Your task to perform on an android device: View the shopping cart on bestbuy.com. Add razer huntsman to the cart on bestbuy.com, then select checkout. Image 0: 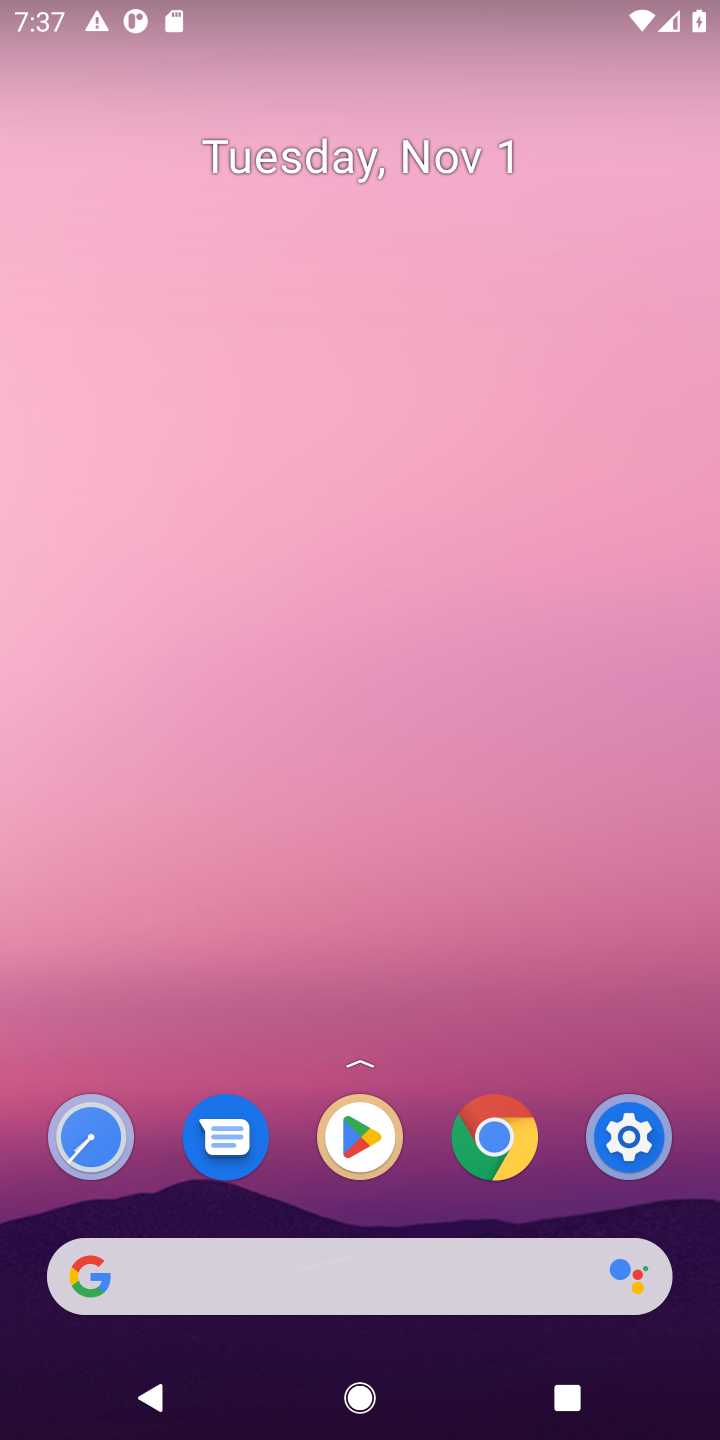
Step 0: click (293, 1280)
Your task to perform on an android device: View the shopping cart on bestbuy.com. Add razer huntsman to the cart on bestbuy.com, then select checkout. Image 1: 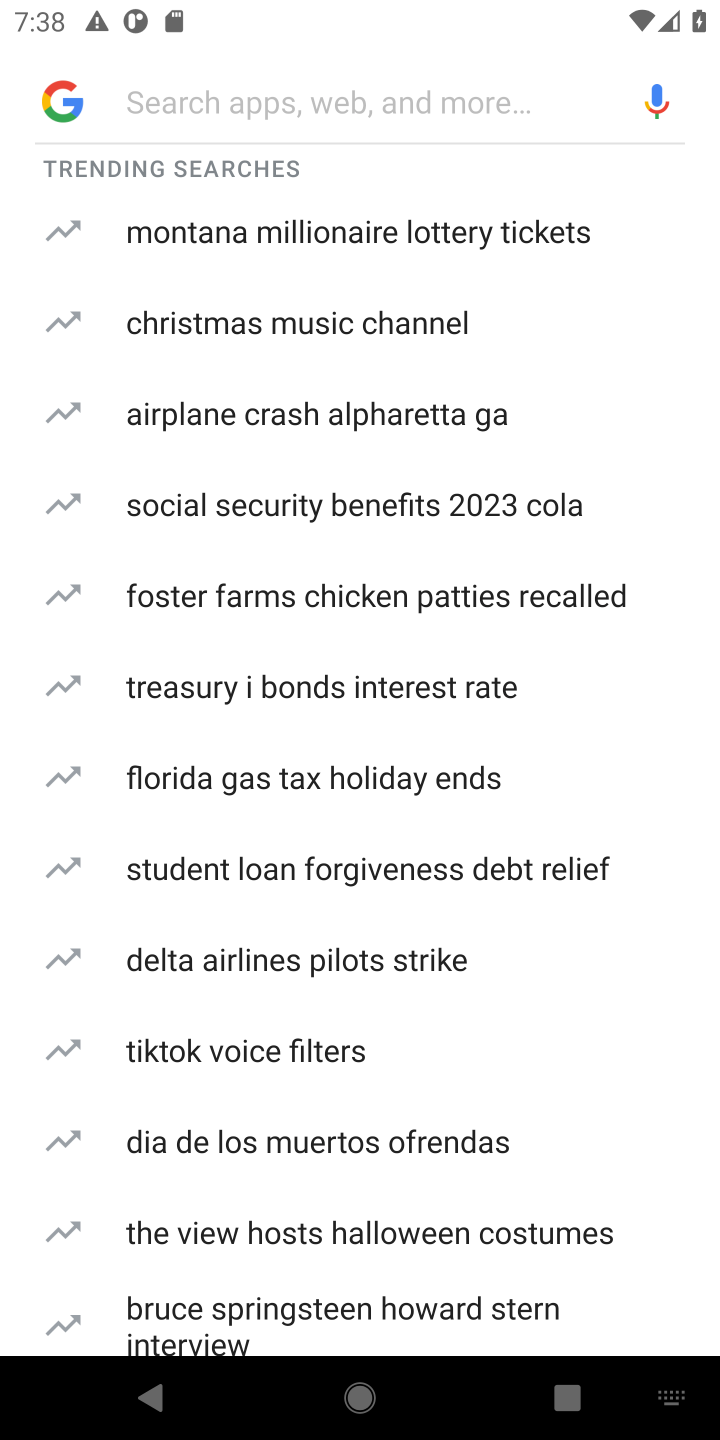
Step 1: type "bestbuy.com"
Your task to perform on an android device: View the shopping cart on bestbuy.com. Add razer huntsman to the cart on bestbuy.com, then select checkout. Image 2: 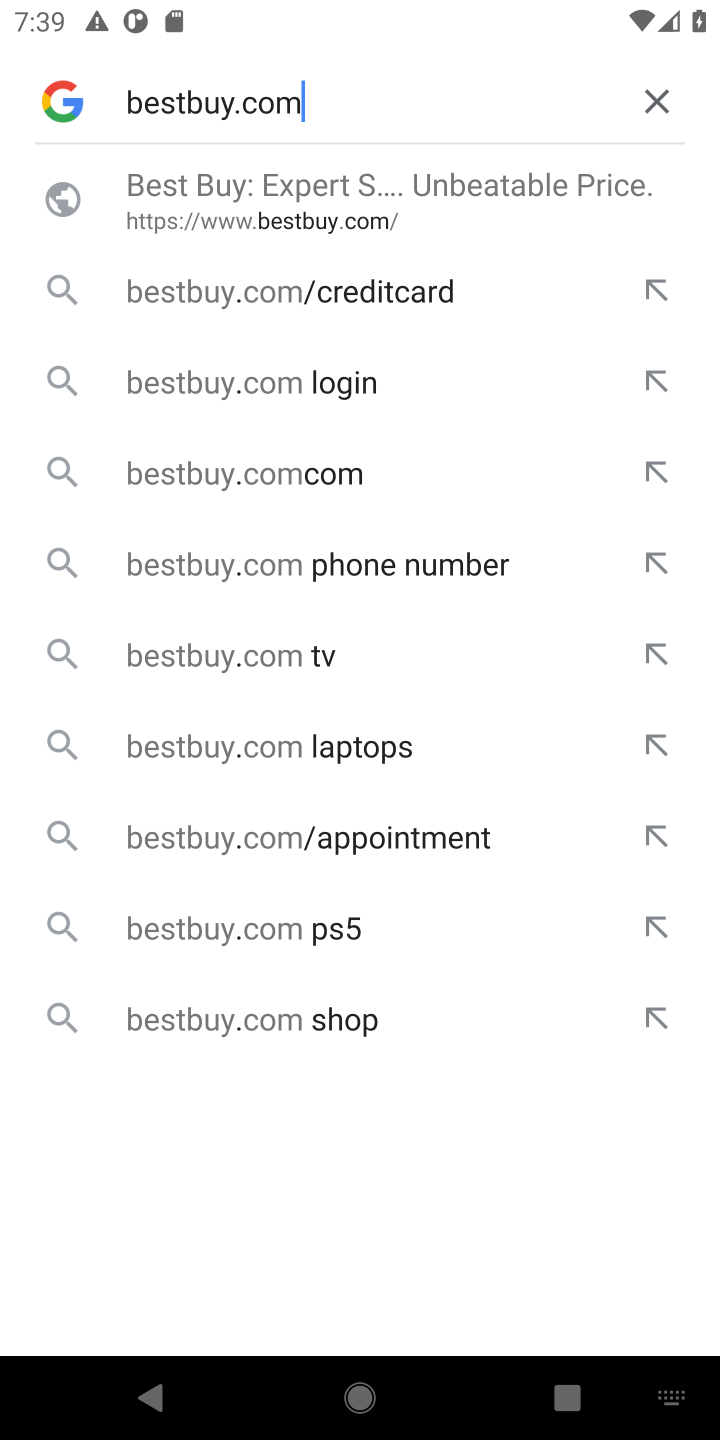
Step 2: click (265, 188)
Your task to perform on an android device: View the shopping cart on bestbuy.com. Add razer huntsman to the cart on bestbuy.com, then select checkout. Image 3: 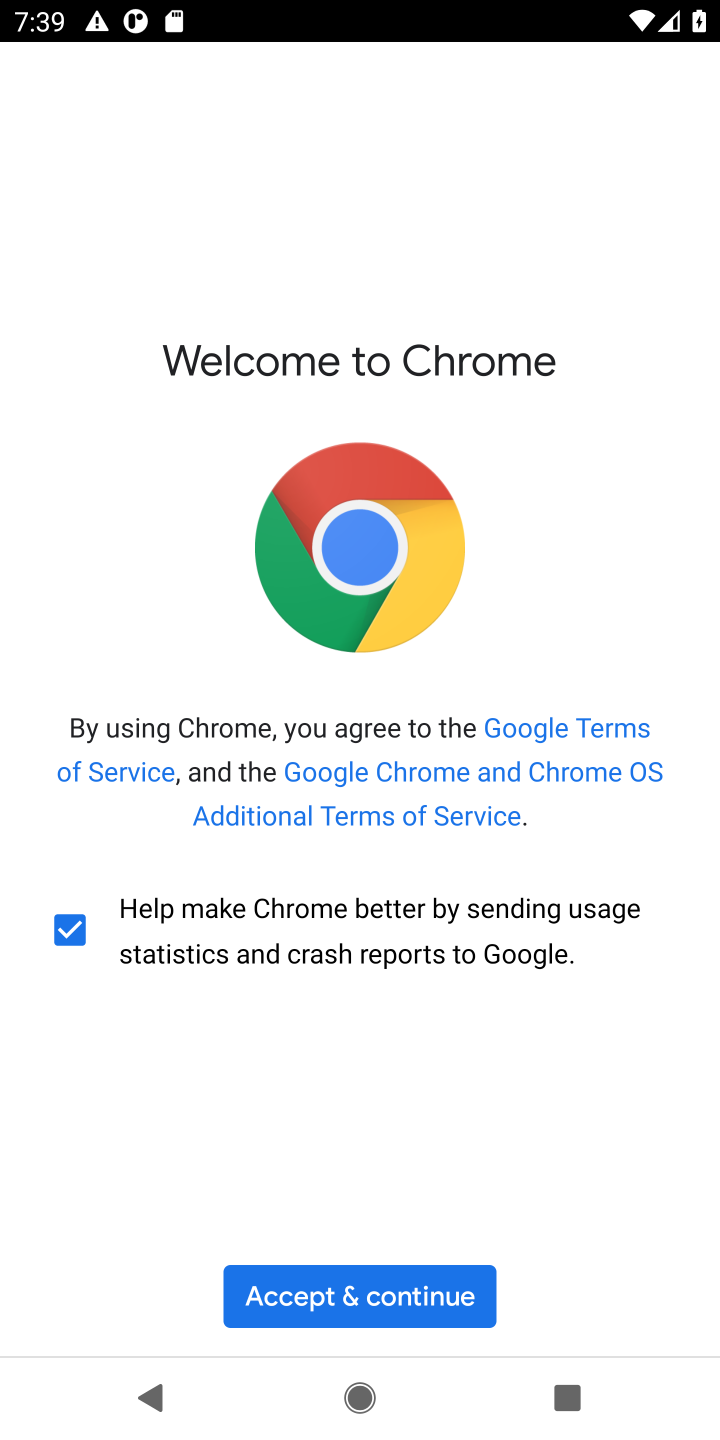
Step 3: click (358, 1293)
Your task to perform on an android device: View the shopping cart on bestbuy.com. Add razer huntsman to the cart on bestbuy.com, then select checkout. Image 4: 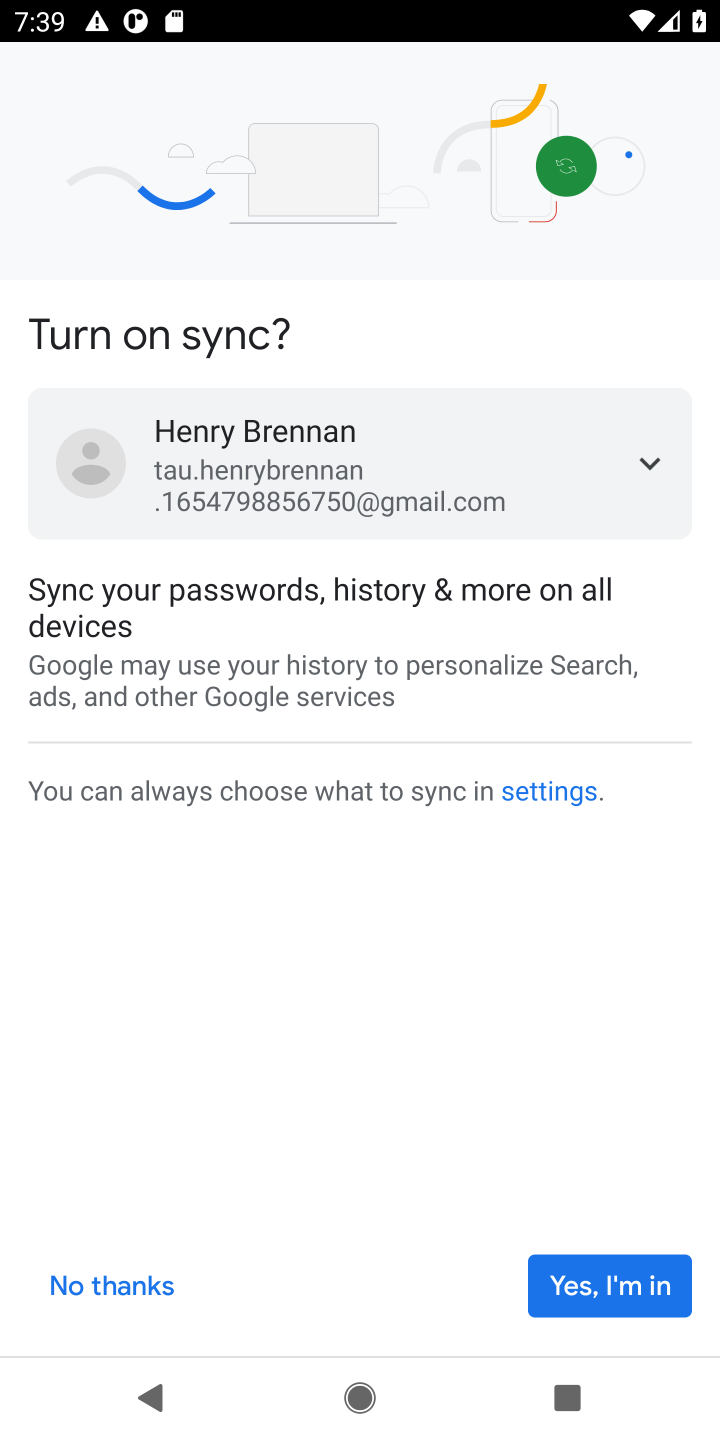
Step 4: click (640, 1274)
Your task to perform on an android device: View the shopping cart on bestbuy.com. Add razer huntsman to the cart on bestbuy.com, then select checkout. Image 5: 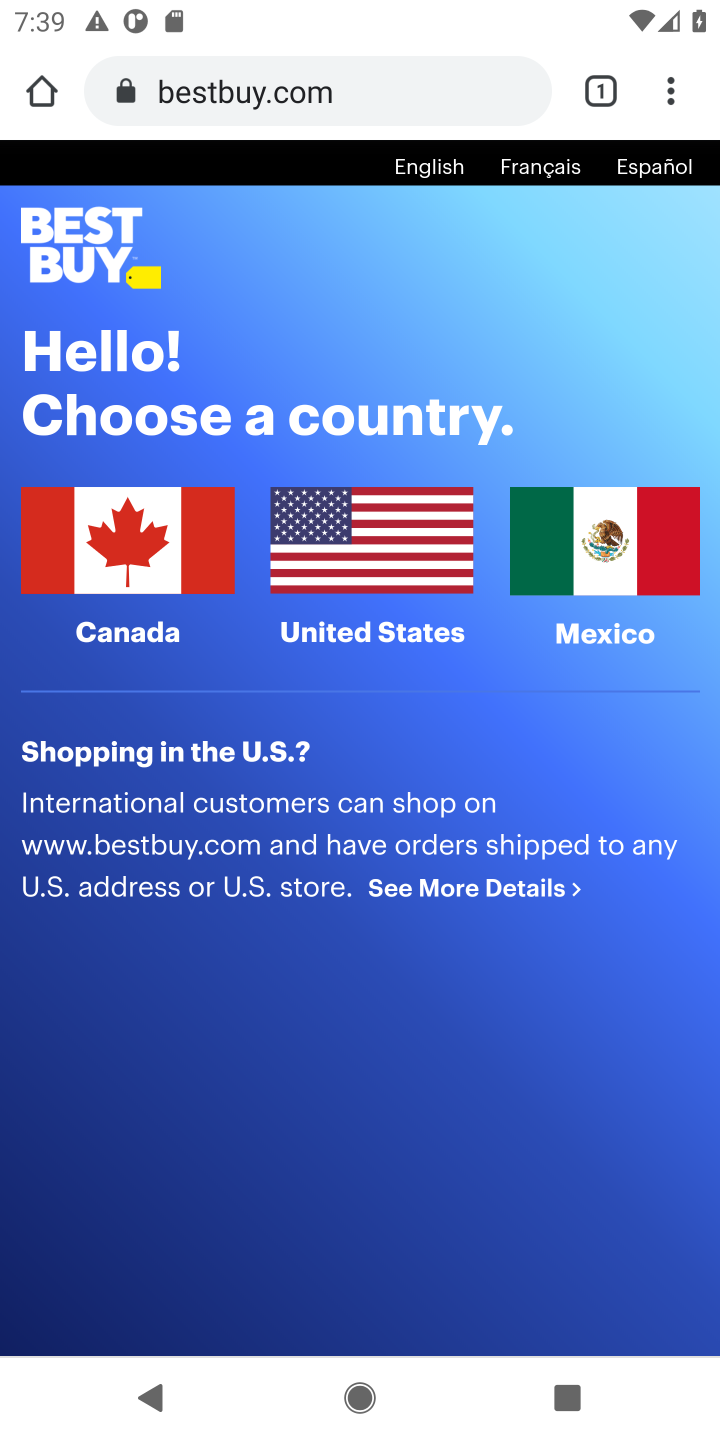
Step 5: click (347, 528)
Your task to perform on an android device: View the shopping cart on bestbuy.com. Add razer huntsman to the cart on bestbuy.com, then select checkout. Image 6: 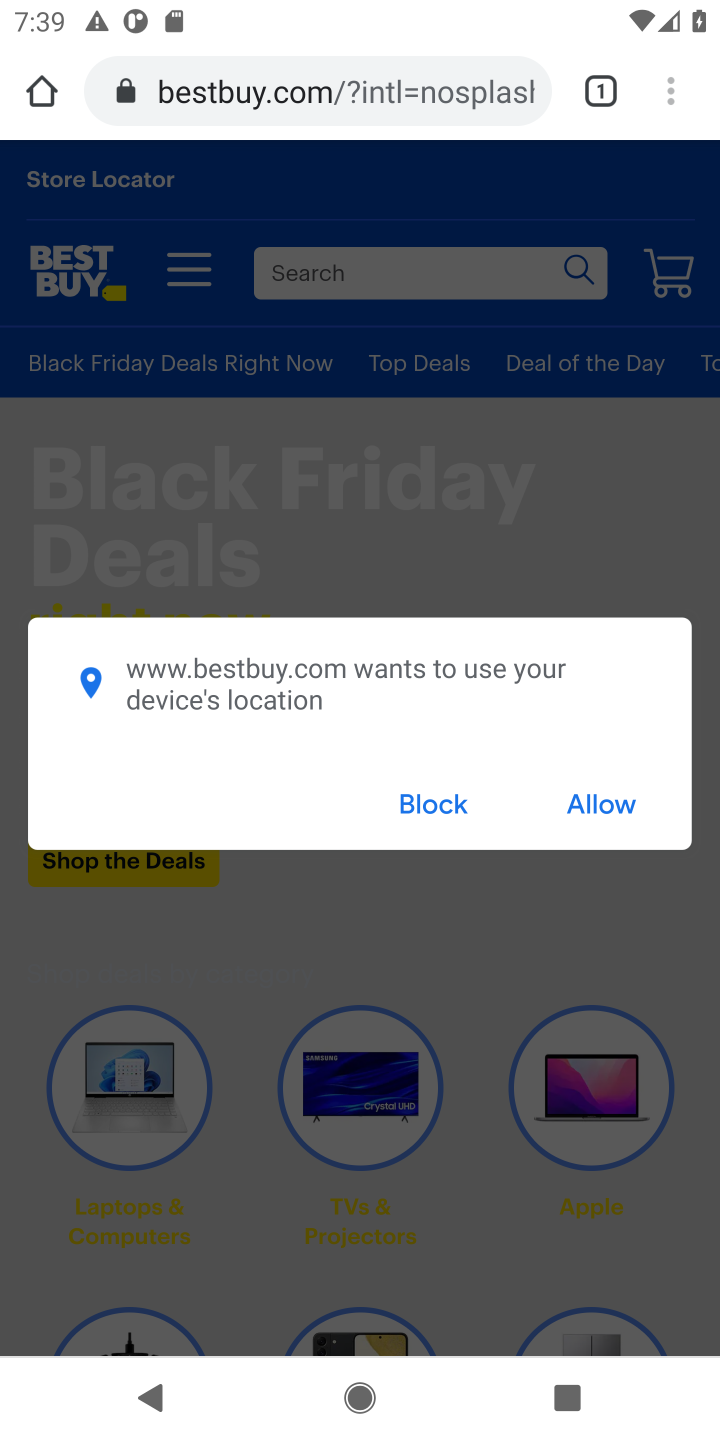
Step 6: click (458, 802)
Your task to perform on an android device: View the shopping cart on bestbuy.com. Add razer huntsman to the cart on bestbuy.com, then select checkout. Image 7: 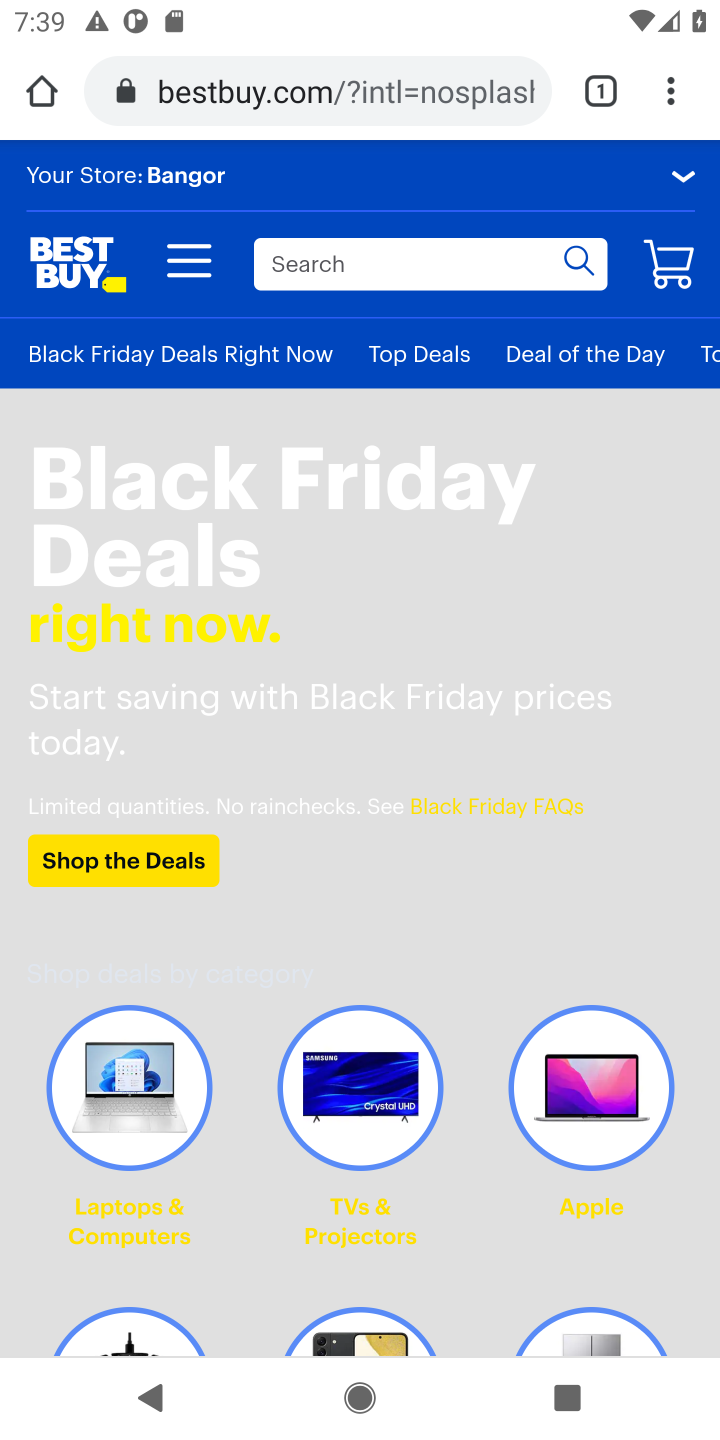
Step 7: click (670, 275)
Your task to perform on an android device: View the shopping cart on bestbuy.com. Add razer huntsman to the cart on bestbuy.com, then select checkout. Image 8: 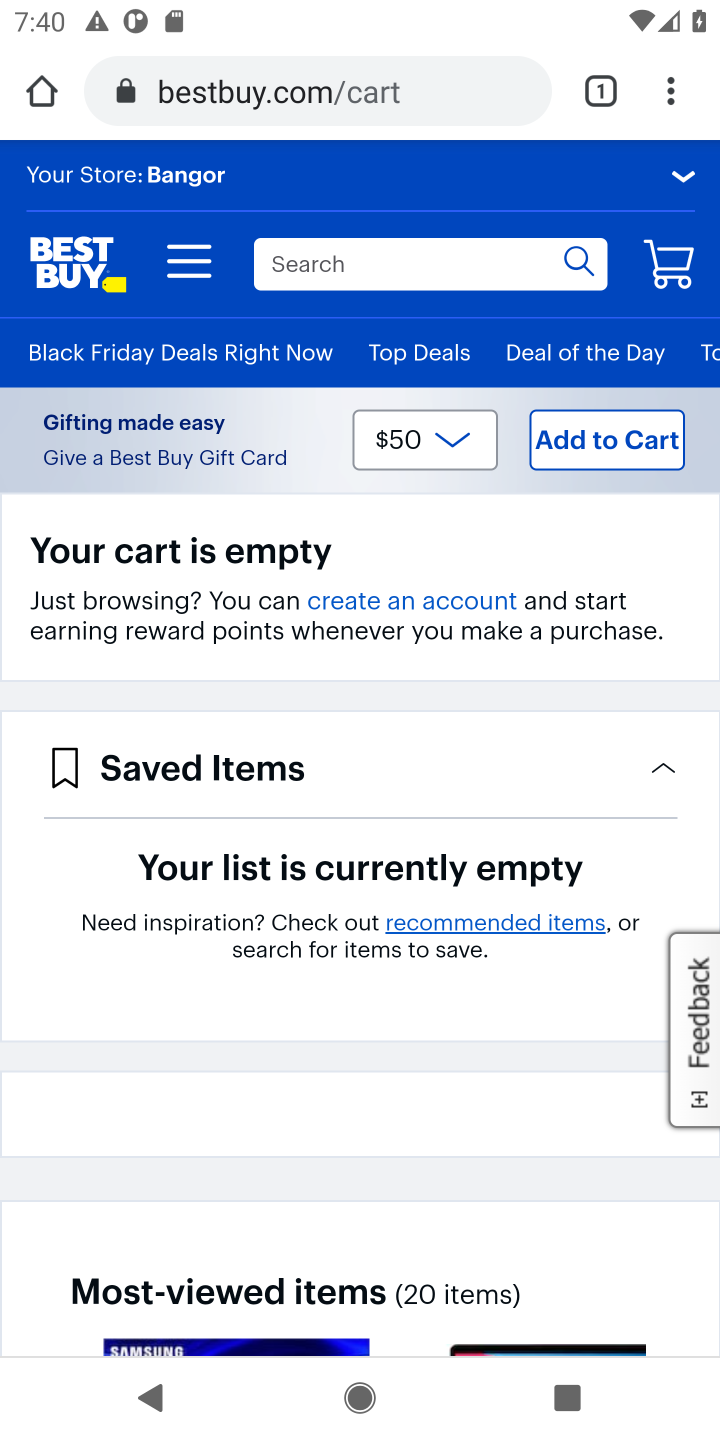
Step 8: click (379, 261)
Your task to perform on an android device: View the shopping cart on bestbuy.com. Add razer huntsman to the cart on bestbuy.com, then select checkout. Image 9: 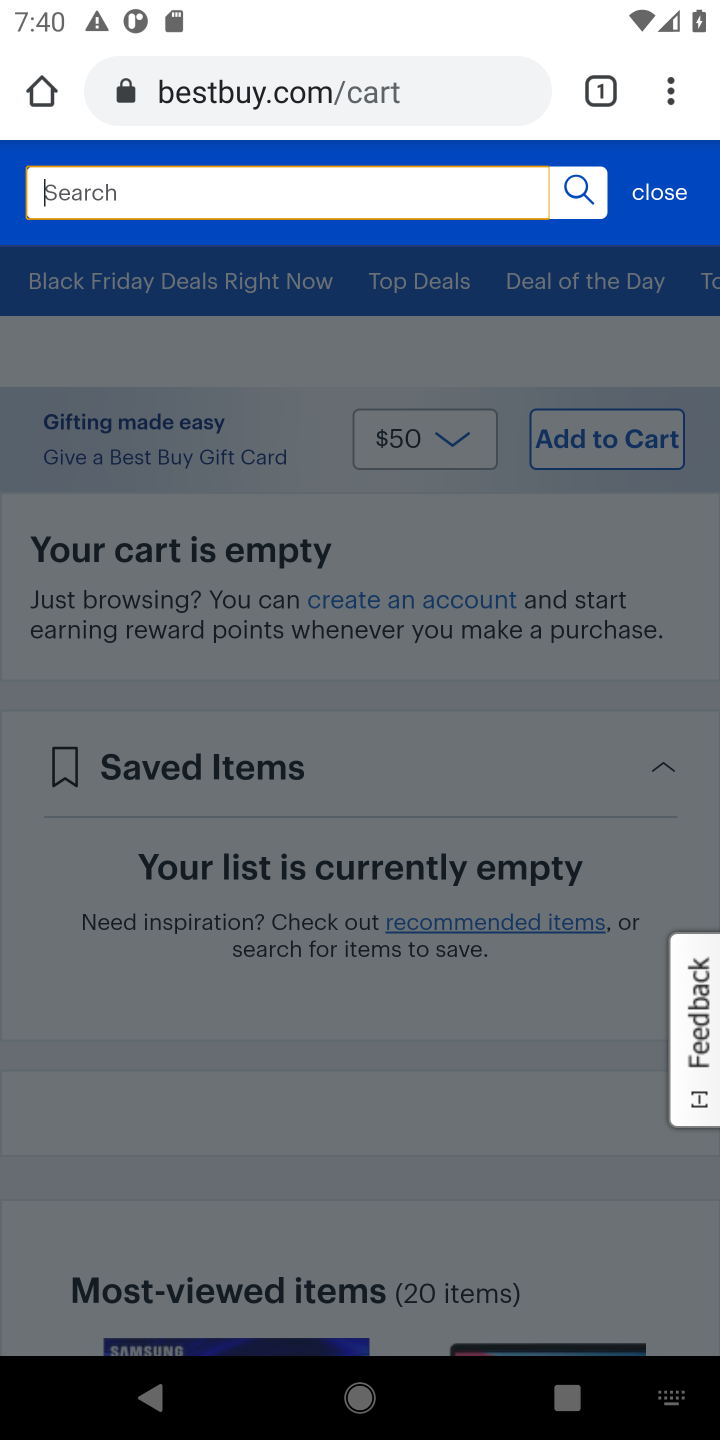
Step 9: type "razer huntsman"
Your task to perform on an android device: View the shopping cart on bestbuy.com. Add razer huntsman to the cart on bestbuy.com, then select checkout. Image 10: 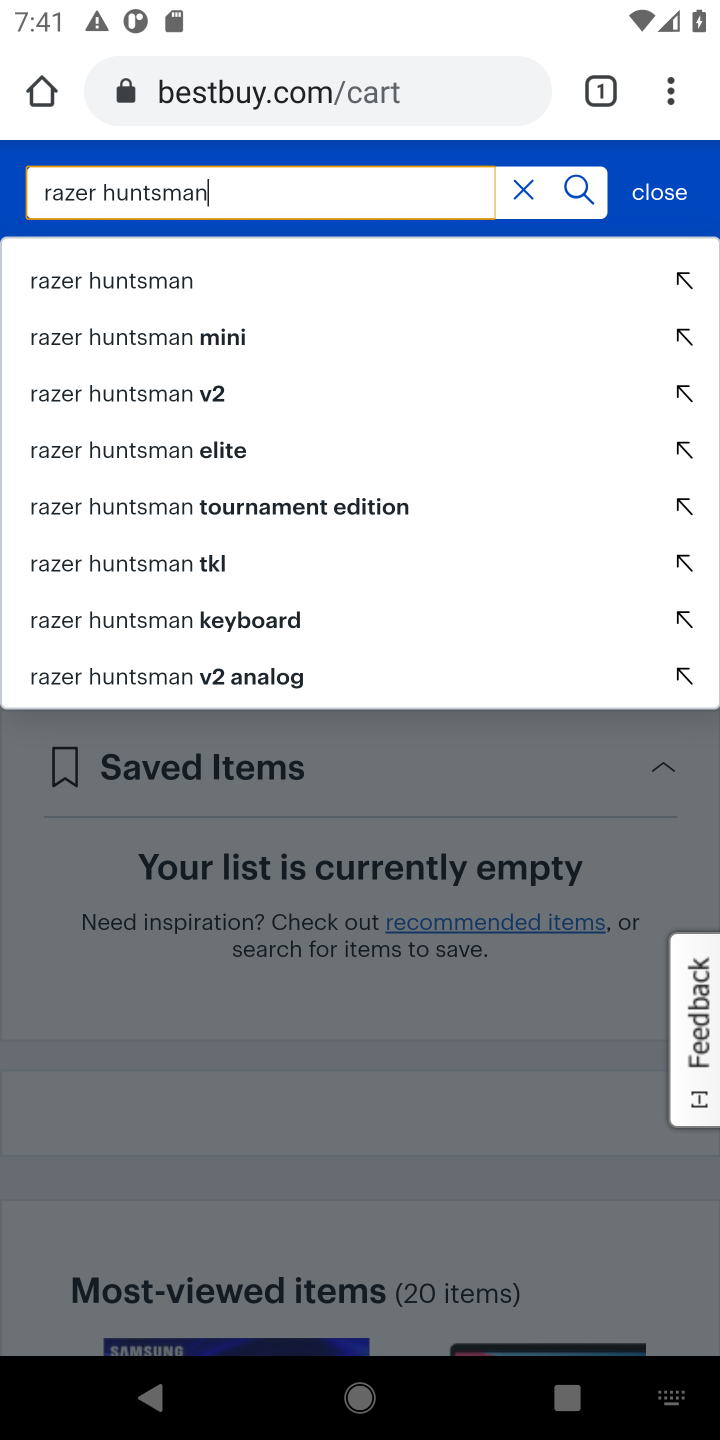
Step 10: click (175, 281)
Your task to perform on an android device: View the shopping cart on bestbuy.com. Add razer huntsman to the cart on bestbuy.com, then select checkout. Image 11: 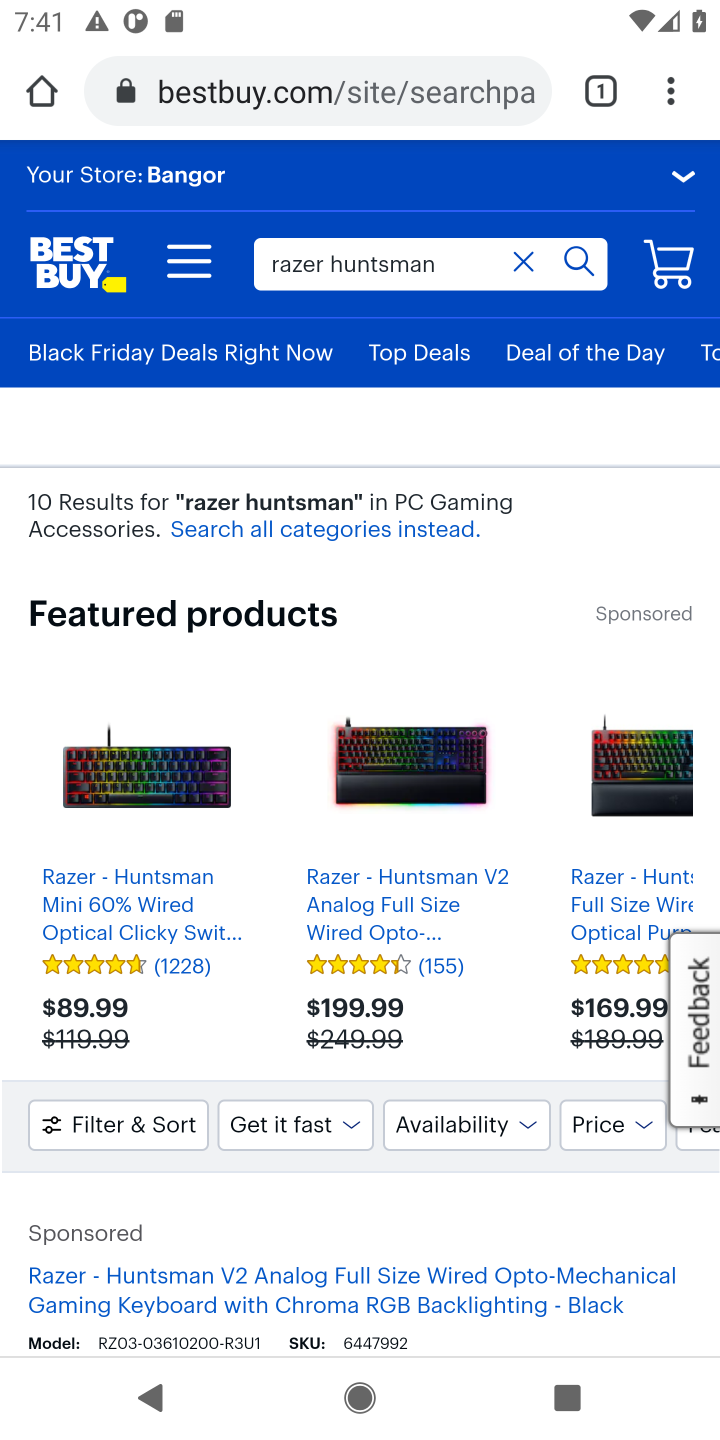
Step 11: click (103, 888)
Your task to perform on an android device: View the shopping cart on bestbuy.com. Add razer huntsman to the cart on bestbuy.com, then select checkout. Image 12: 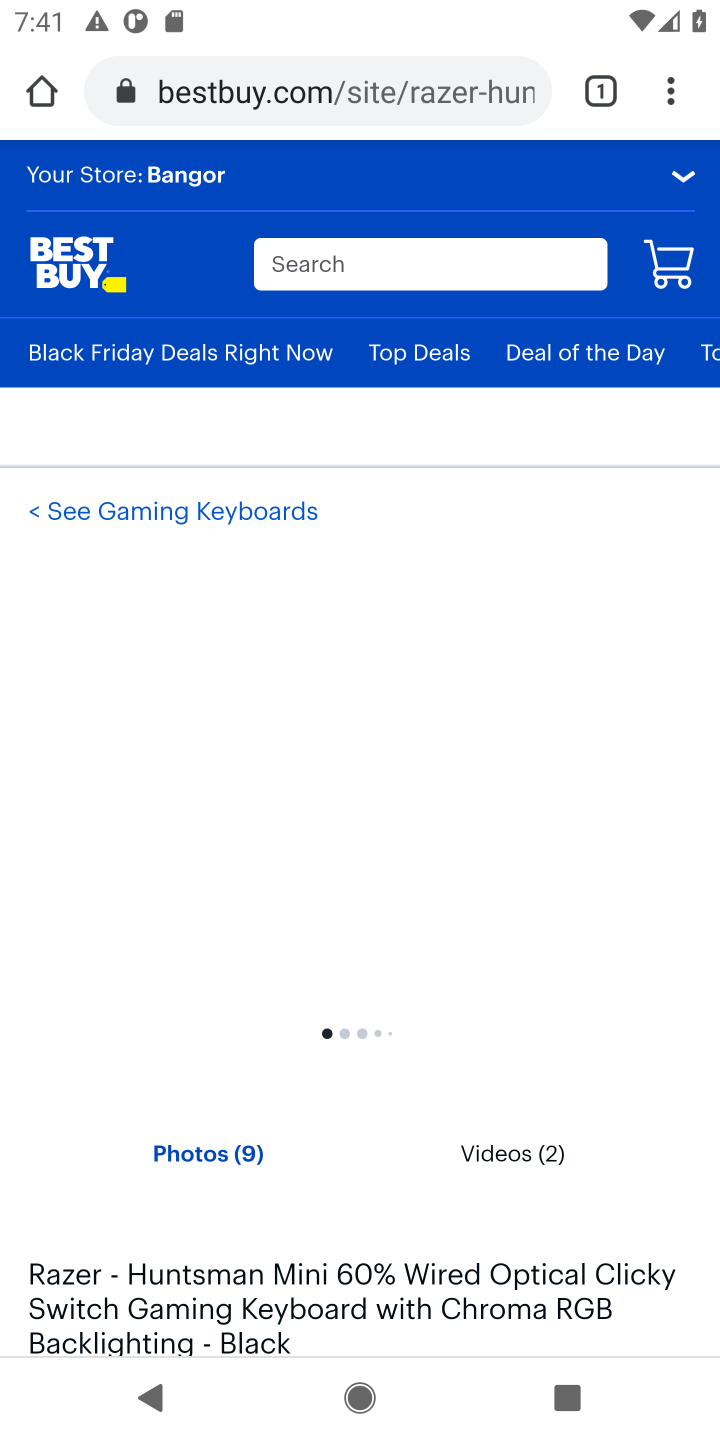
Step 12: drag from (387, 1080) to (430, 508)
Your task to perform on an android device: View the shopping cart on bestbuy.com. Add razer huntsman to the cart on bestbuy.com, then select checkout. Image 13: 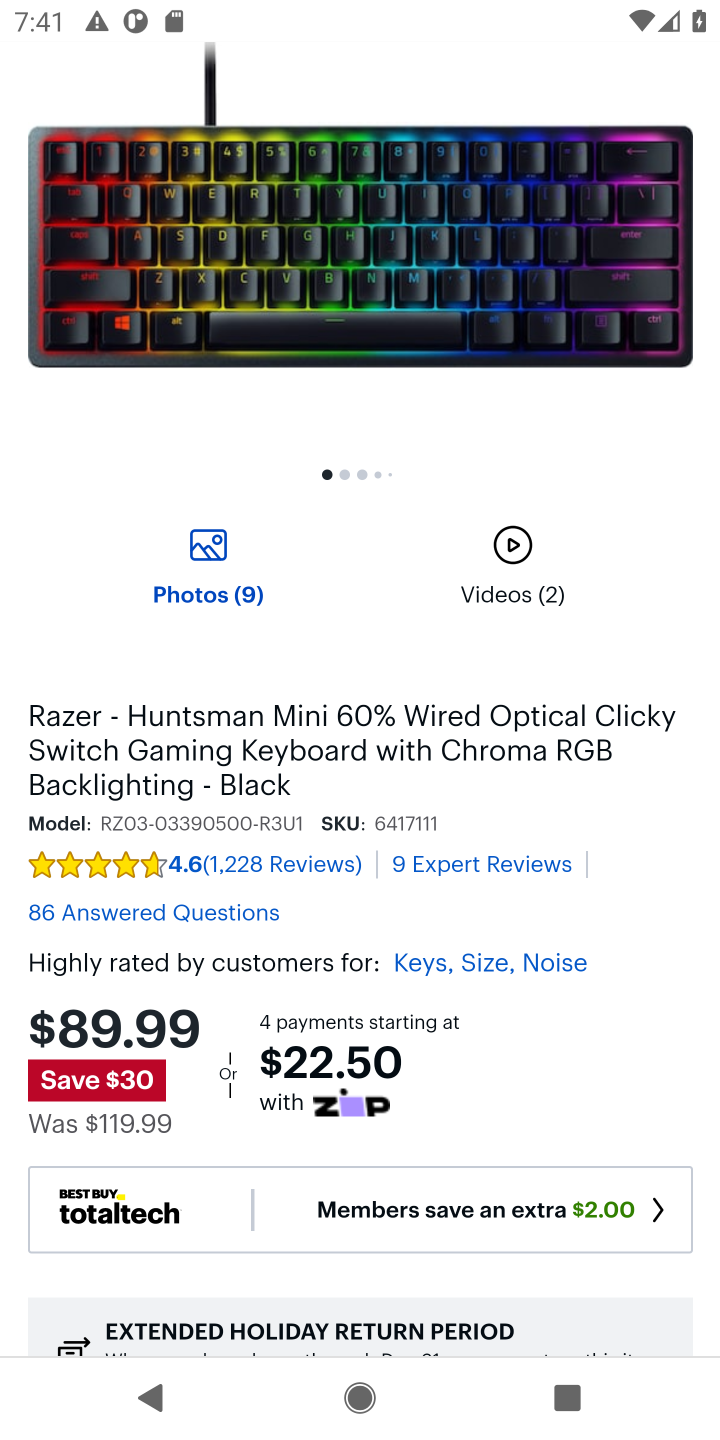
Step 13: drag from (412, 966) to (413, 786)
Your task to perform on an android device: View the shopping cart on bestbuy.com. Add razer huntsman to the cart on bestbuy.com, then select checkout. Image 14: 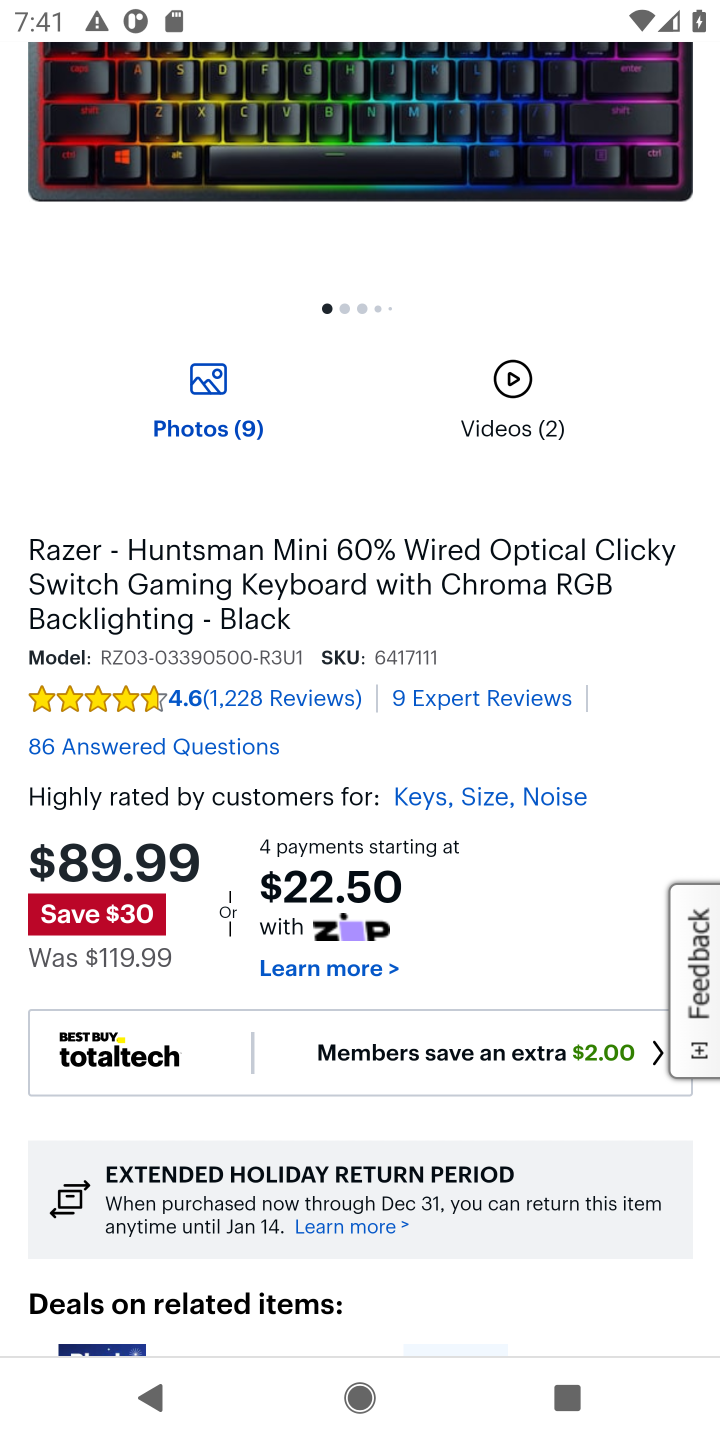
Step 14: drag from (424, 1166) to (464, 756)
Your task to perform on an android device: View the shopping cart on bestbuy.com. Add razer huntsman to the cart on bestbuy.com, then select checkout. Image 15: 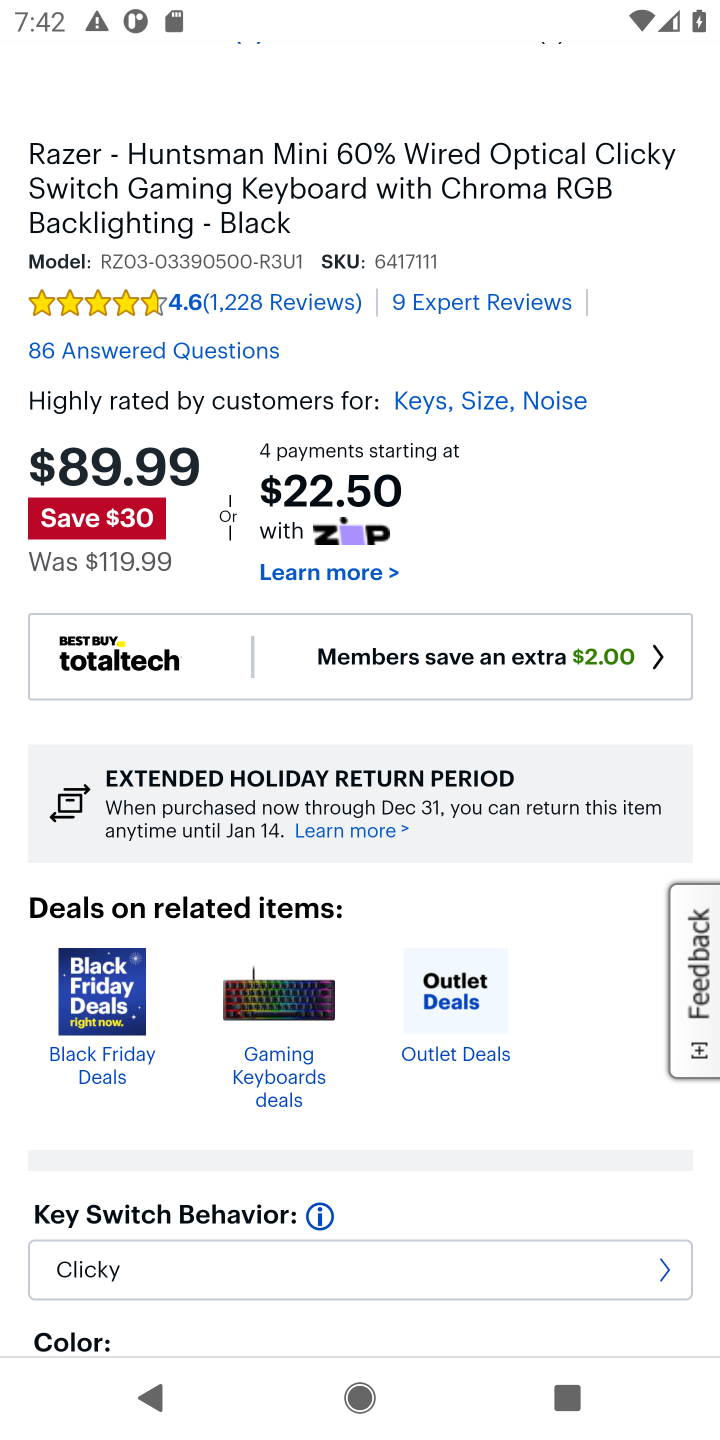
Step 15: drag from (404, 985) to (428, 760)
Your task to perform on an android device: View the shopping cart on bestbuy.com. Add razer huntsman to the cart on bestbuy.com, then select checkout. Image 16: 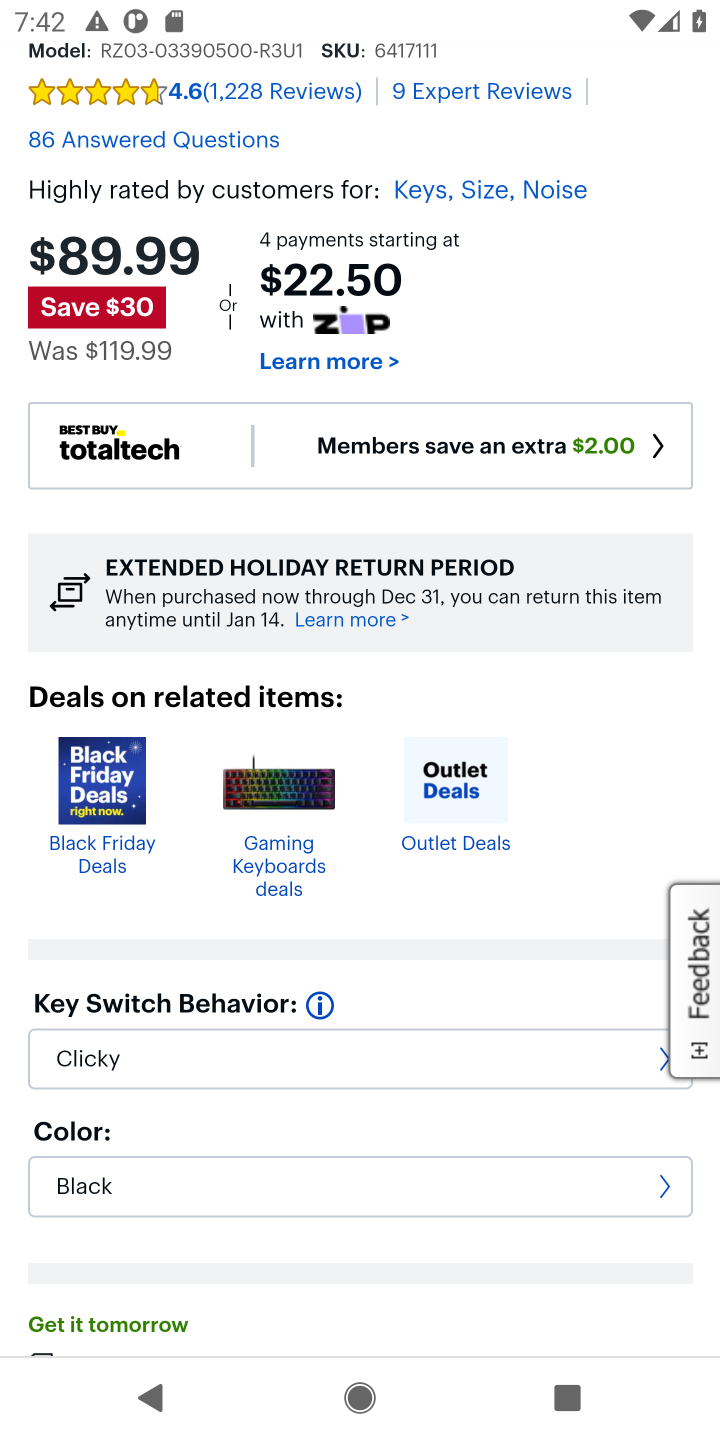
Step 16: drag from (440, 744) to (456, 250)
Your task to perform on an android device: View the shopping cart on bestbuy.com. Add razer huntsman to the cart on bestbuy.com, then select checkout. Image 17: 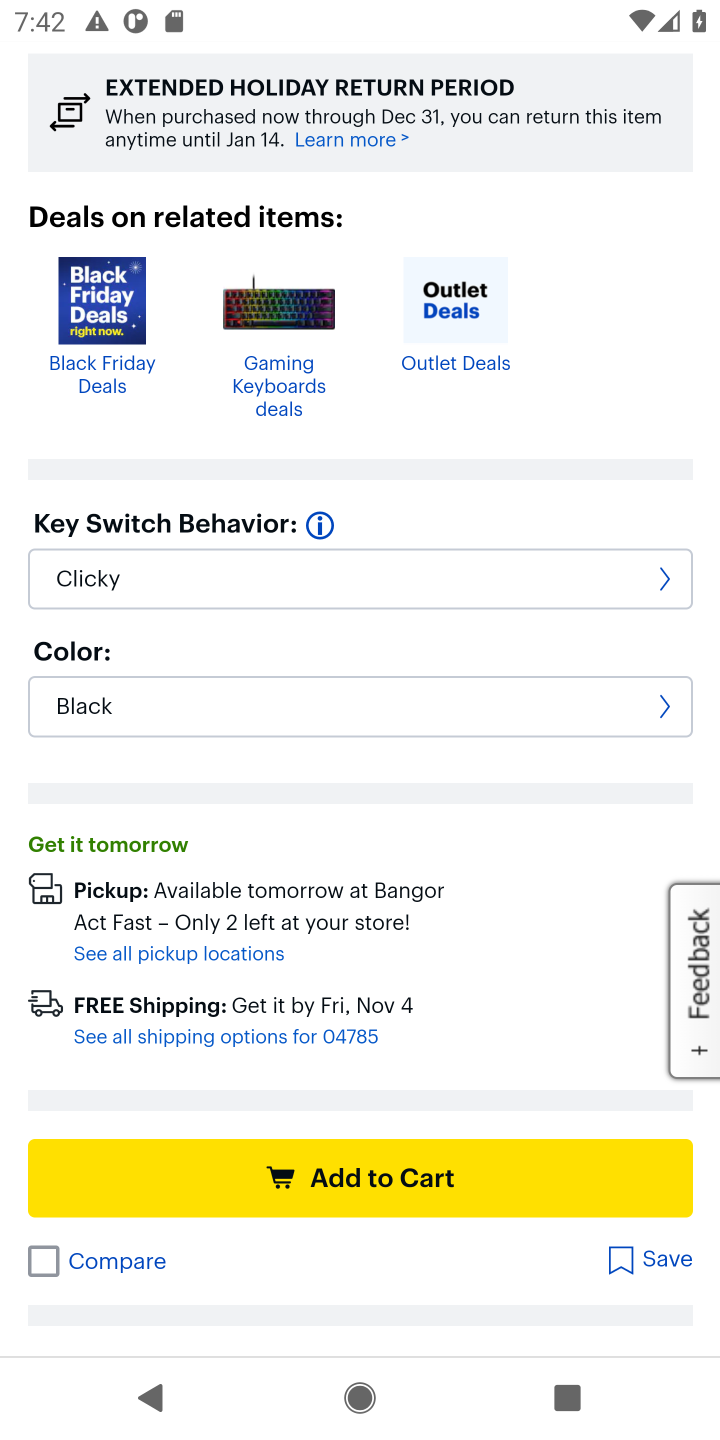
Step 17: click (372, 1177)
Your task to perform on an android device: View the shopping cart on bestbuy.com. Add razer huntsman to the cart on bestbuy.com, then select checkout. Image 18: 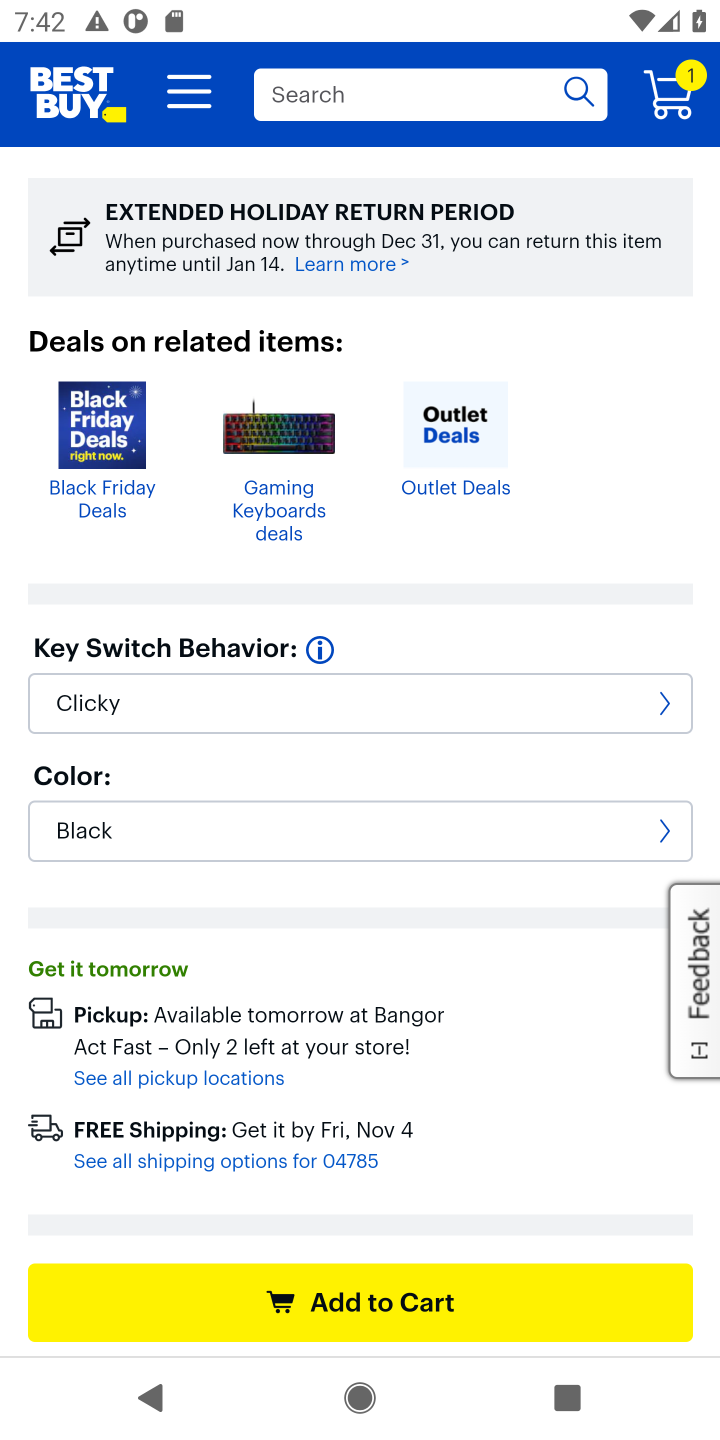
Step 18: click (681, 92)
Your task to perform on an android device: View the shopping cart on bestbuy.com. Add razer huntsman to the cart on bestbuy.com, then select checkout. Image 19: 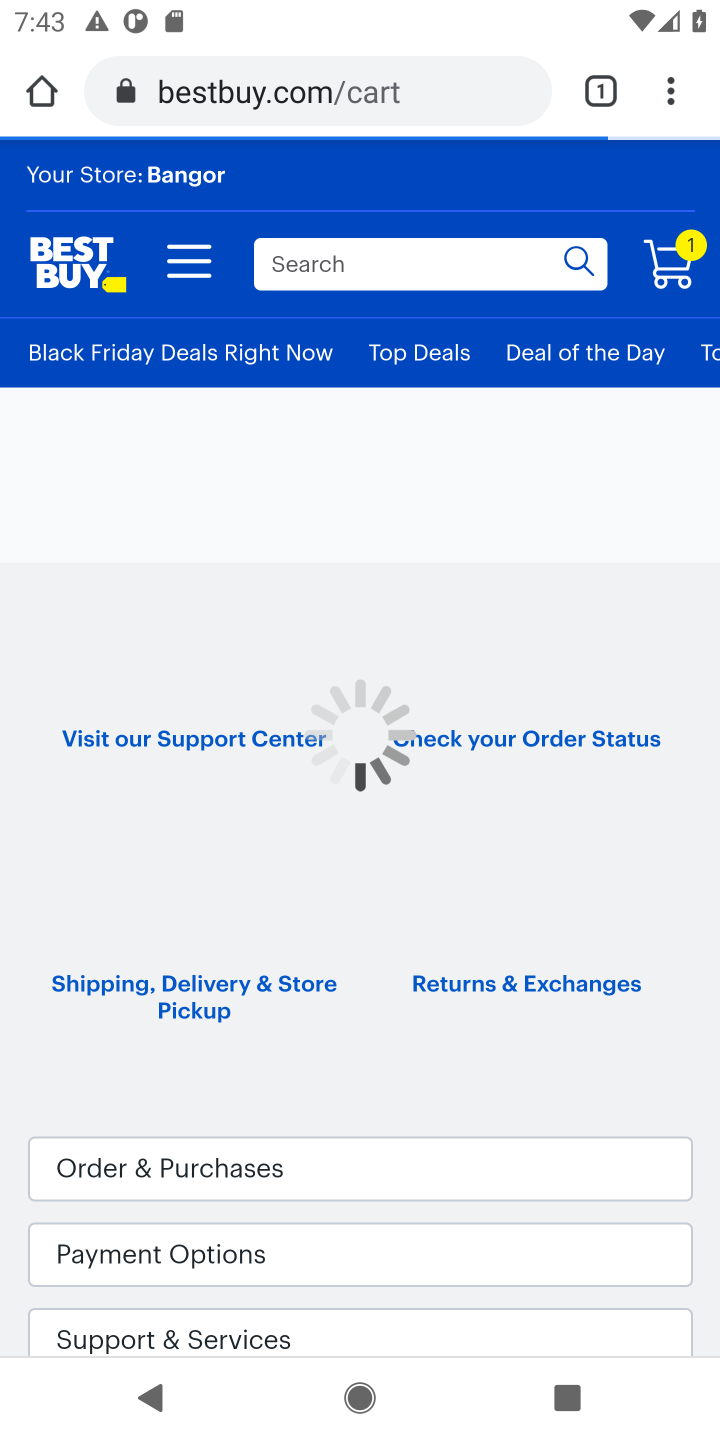
Step 19: click (605, 181)
Your task to perform on an android device: View the shopping cart on bestbuy.com. Add razer huntsman to the cart on bestbuy.com, then select checkout. Image 20: 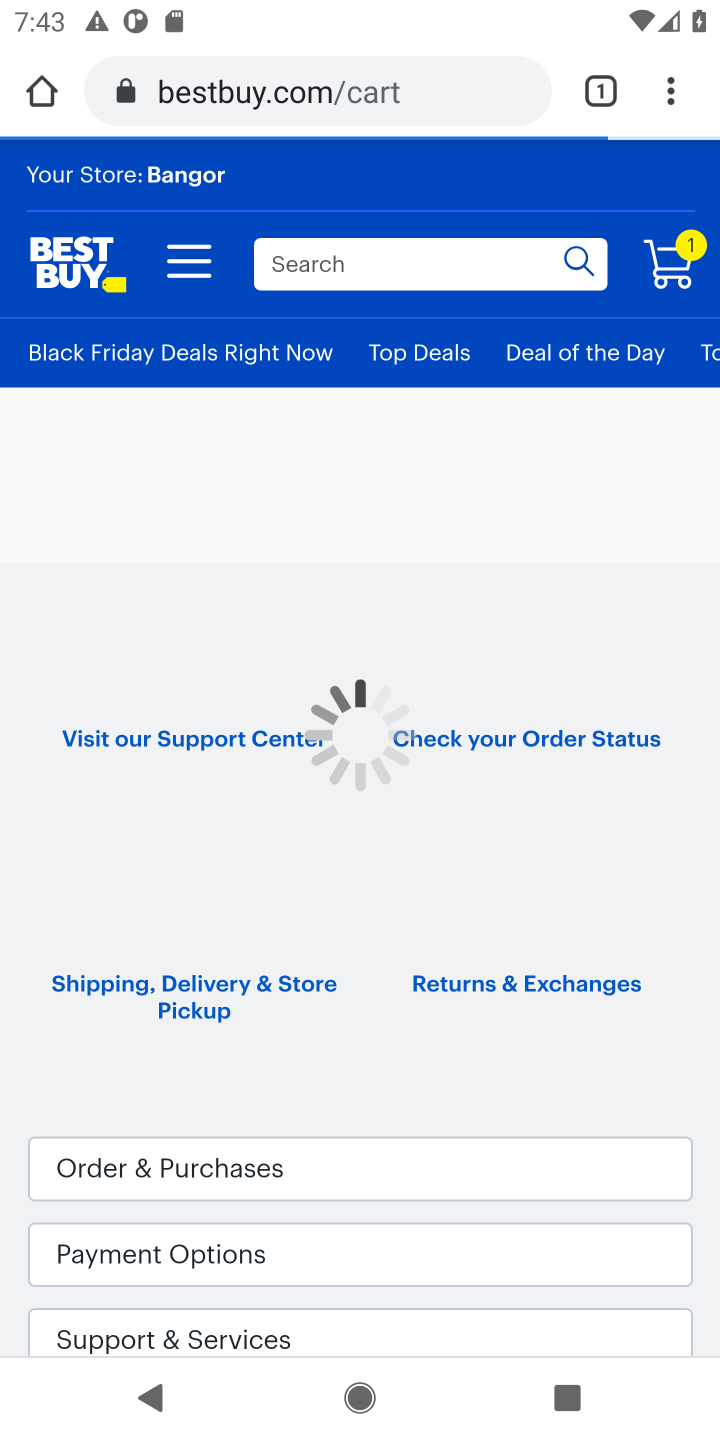
Step 20: click (678, 261)
Your task to perform on an android device: View the shopping cart on bestbuy.com. Add razer huntsman to the cart on bestbuy.com, then select checkout. Image 21: 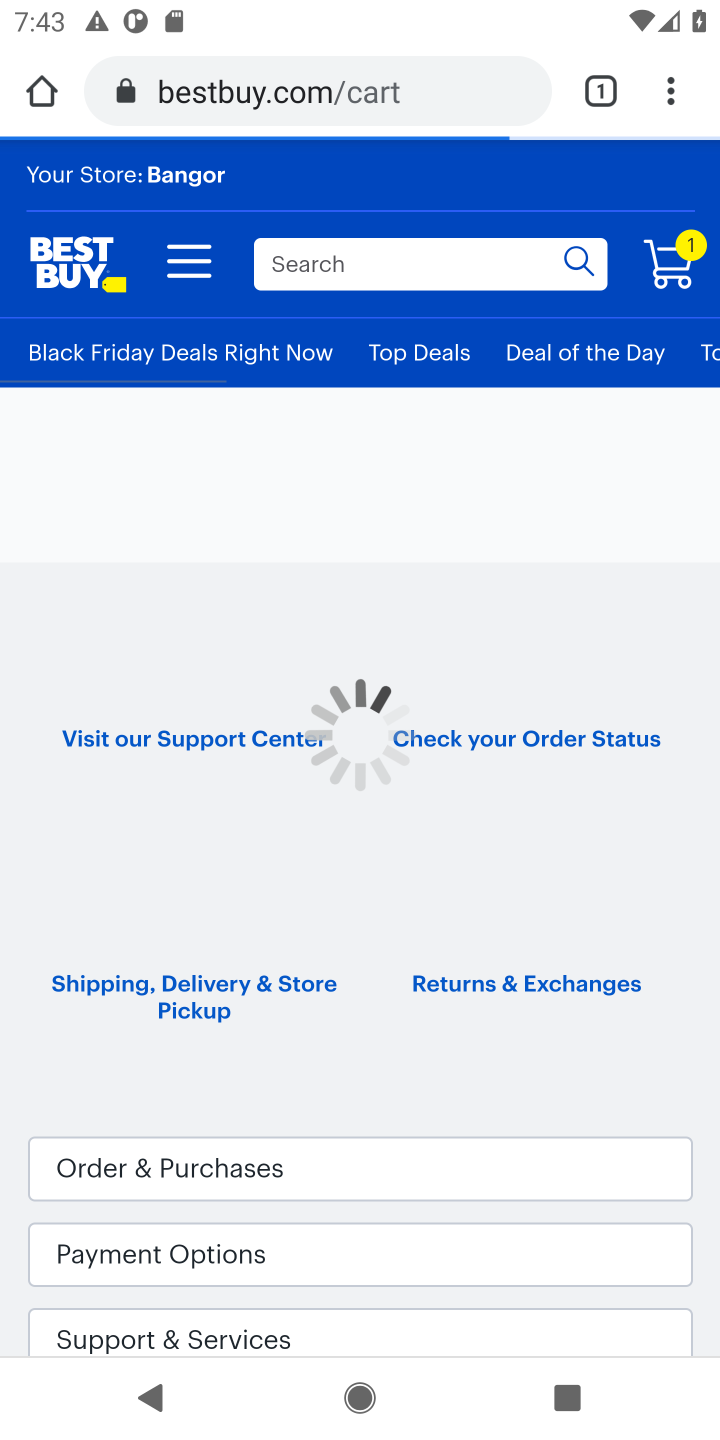
Step 21: click (664, 267)
Your task to perform on an android device: View the shopping cart on bestbuy.com. Add razer huntsman to the cart on bestbuy.com, then select checkout. Image 22: 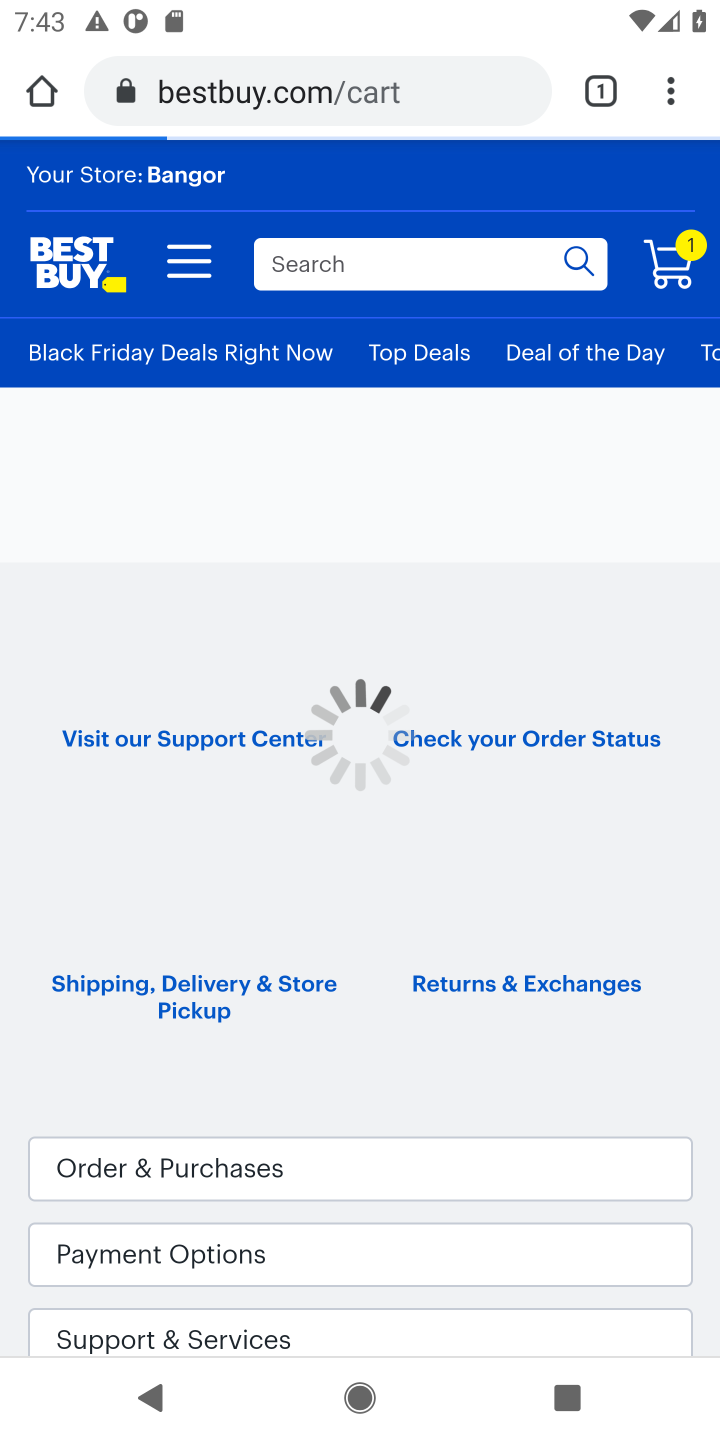
Step 22: click (664, 267)
Your task to perform on an android device: View the shopping cart on bestbuy.com. Add razer huntsman to the cart on bestbuy.com, then select checkout. Image 23: 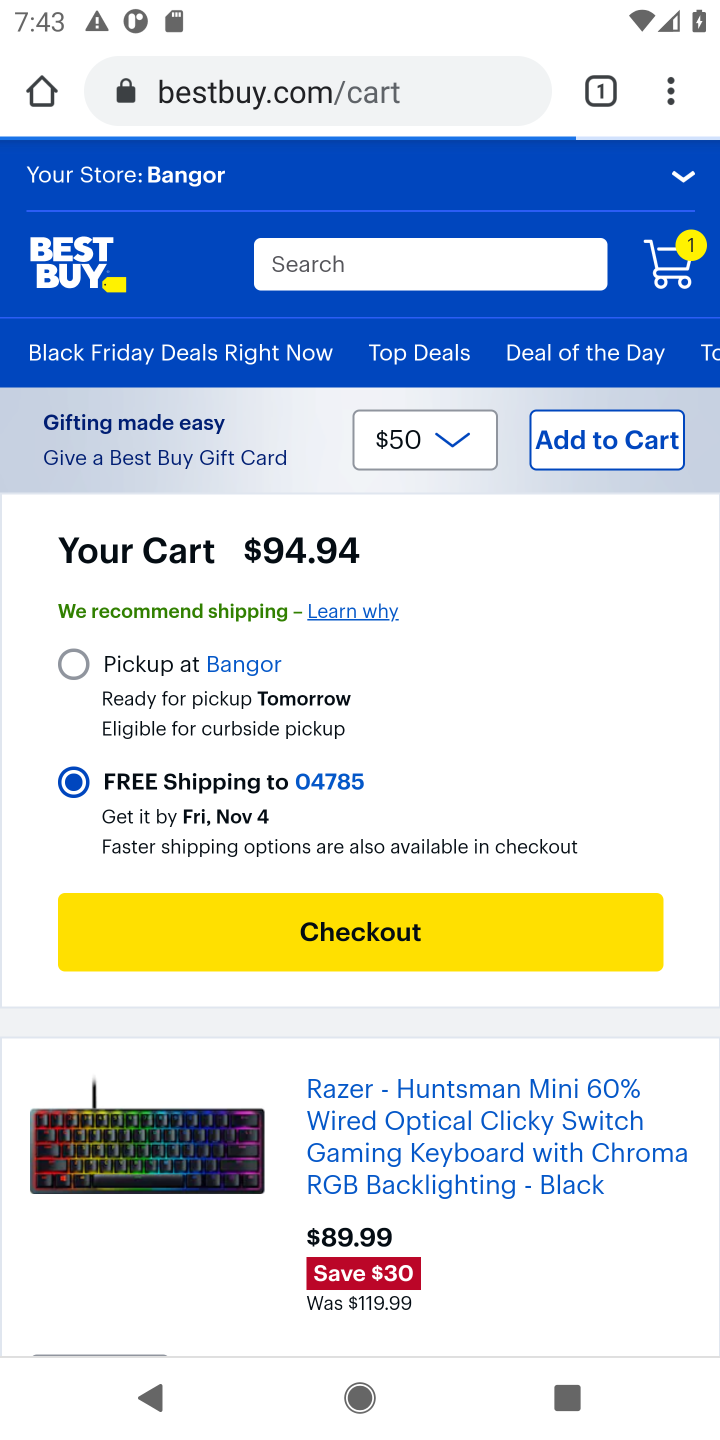
Step 23: click (367, 933)
Your task to perform on an android device: View the shopping cart on bestbuy.com. Add razer huntsman to the cart on bestbuy.com, then select checkout. Image 24: 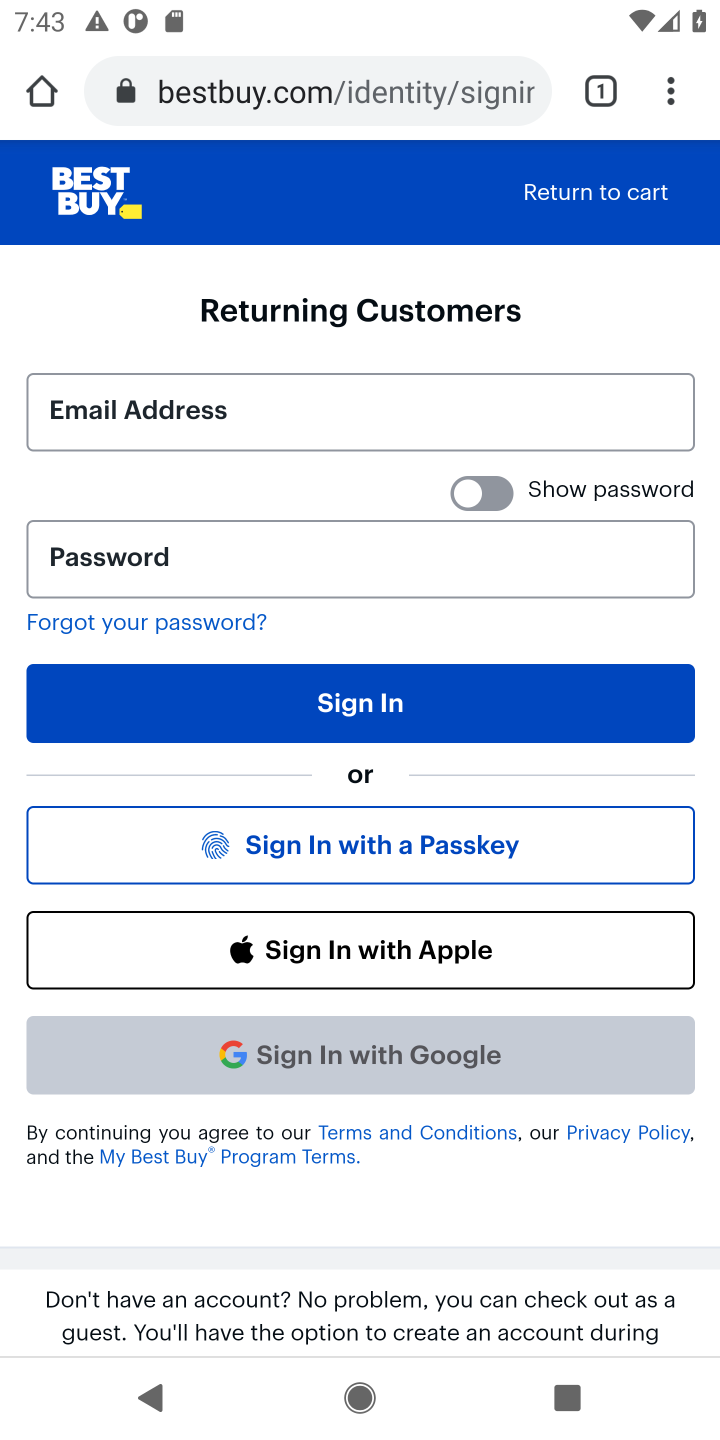
Step 24: task complete